Your task to perform on an android device: find photos in the google photos app Image 0: 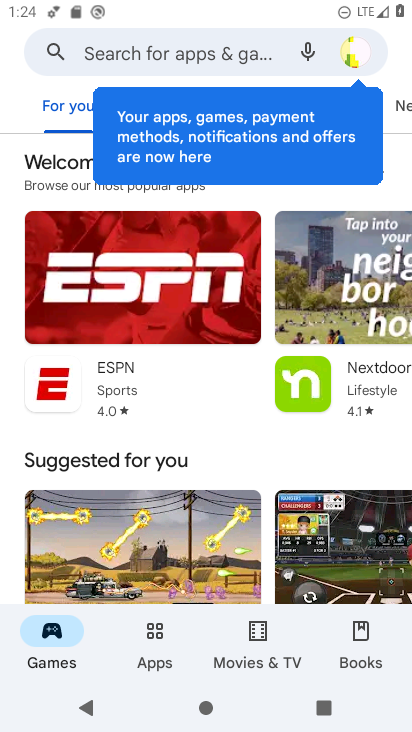
Step 0: press home button
Your task to perform on an android device: find photos in the google photos app Image 1: 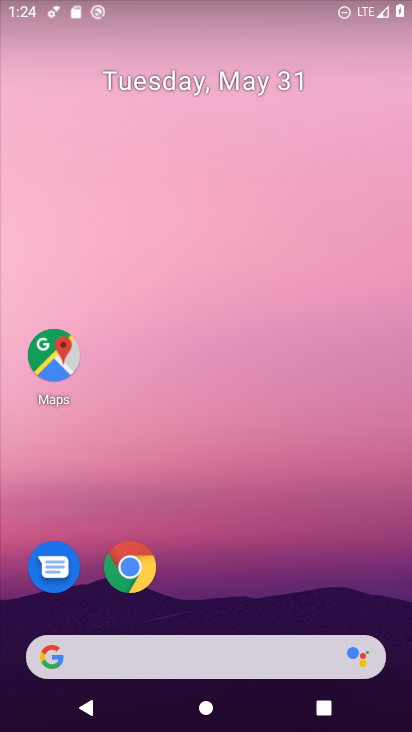
Step 1: drag from (186, 602) to (190, 216)
Your task to perform on an android device: find photos in the google photos app Image 2: 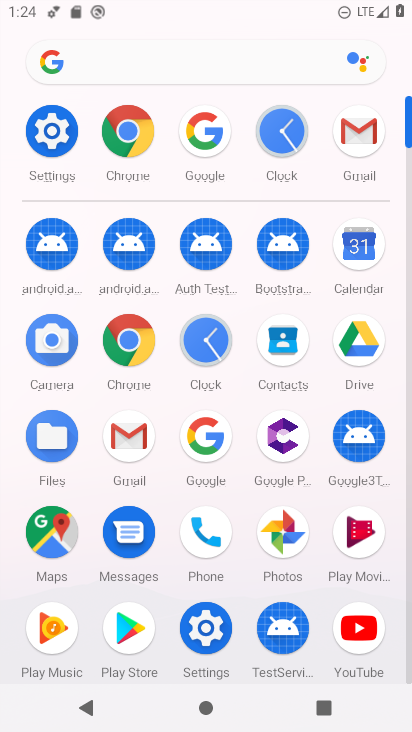
Step 2: click (277, 523)
Your task to perform on an android device: find photos in the google photos app Image 3: 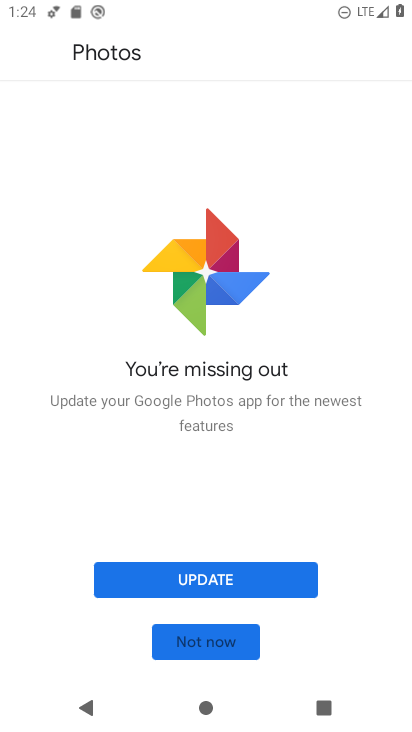
Step 3: click (215, 640)
Your task to perform on an android device: find photos in the google photos app Image 4: 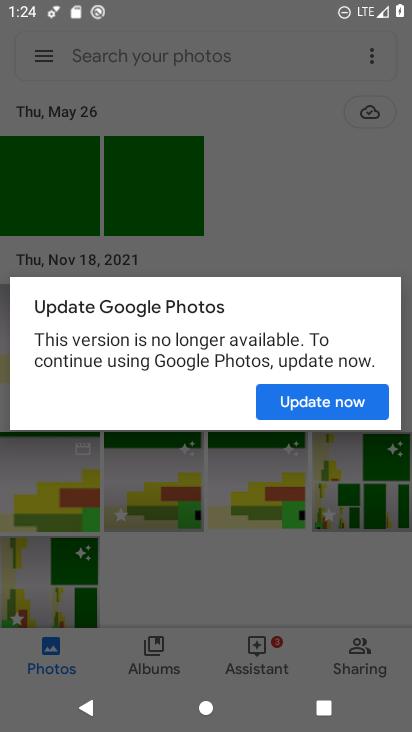
Step 4: click (284, 403)
Your task to perform on an android device: find photos in the google photos app Image 5: 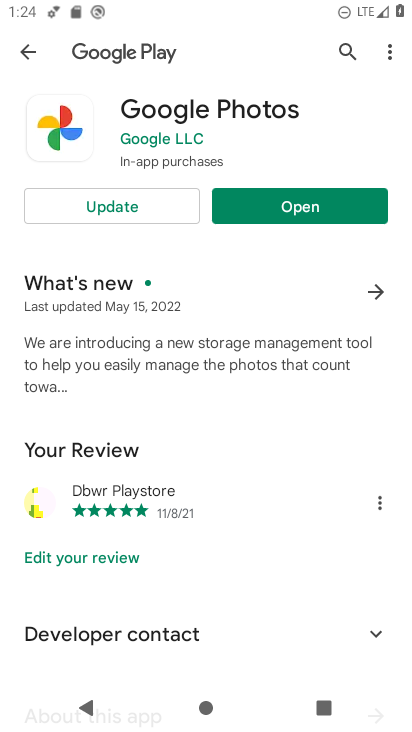
Step 5: click (327, 207)
Your task to perform on an android device: find photos in the google photos app Image 6: 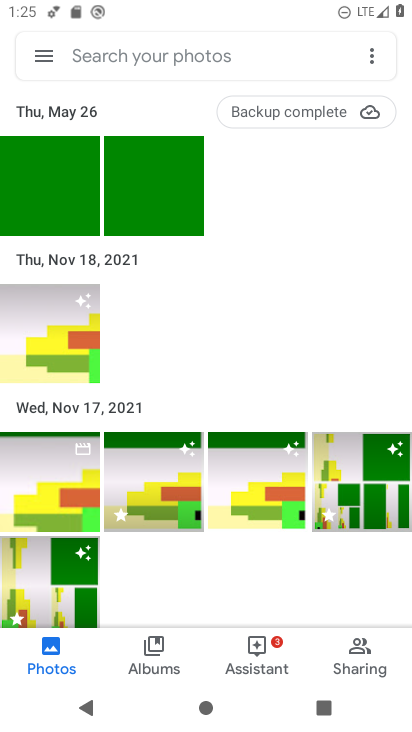
Step 6: click (172, 61)
Your task to perform on an android device: find photos in the google photos app Image 7: 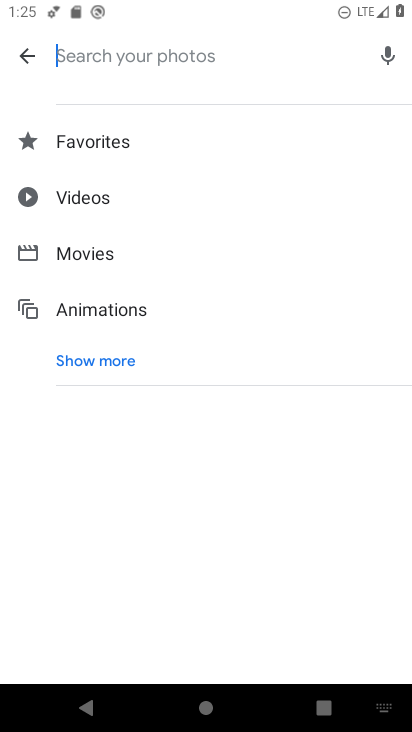
Step 7: type "aaa"
Your task to perform on an android device: find photos in the google photos app Image 8: 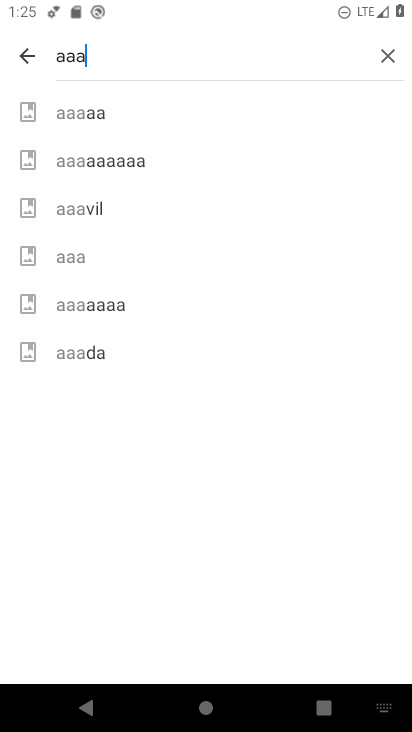
Step 8: click (110, 118)
Your task to perform on an android device: find photos in the google photos app Image 9: 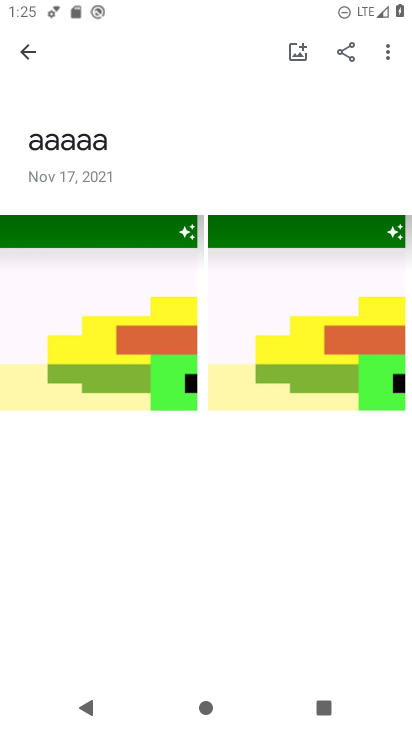
Step 9: task complete